Your task to perform on an android device: Check the weather Image 0: 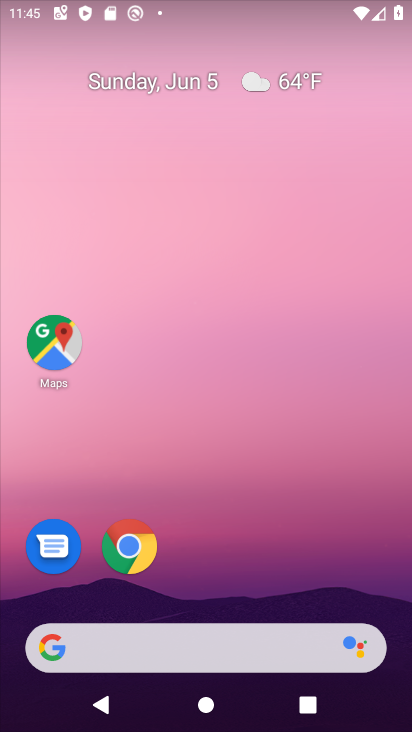
Step 0: click (140, 540)
Your task to perform on an android device: Check the weather Image 1: 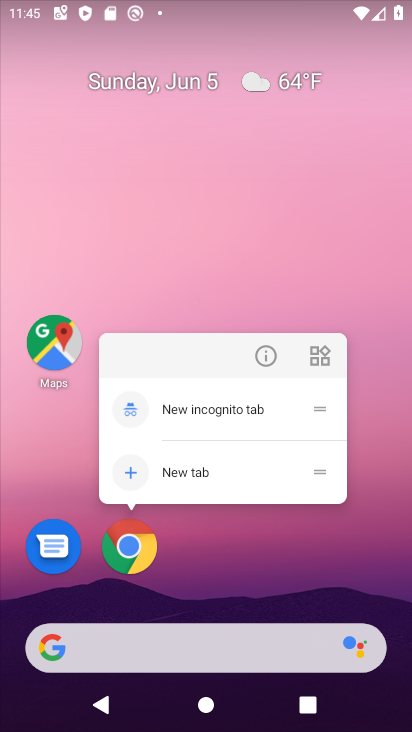
Step 1: click (141, 535)
Your task to perform on an android device: Check the weather Image 2: 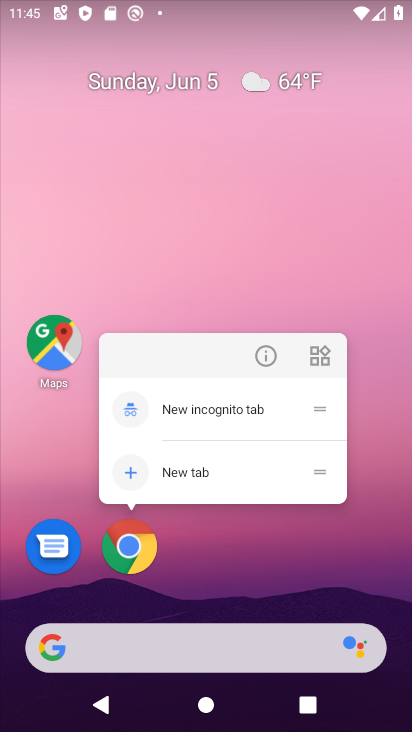
Step 2: click (137, 535)
Your task to perform on an android device: Check the weather Image 3: 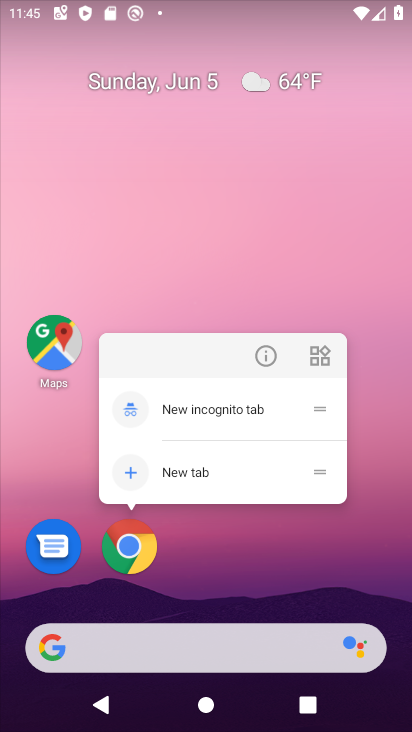
Step 3: click (133, 539)
Your task to perform on an android device: Check the weather Image 4: 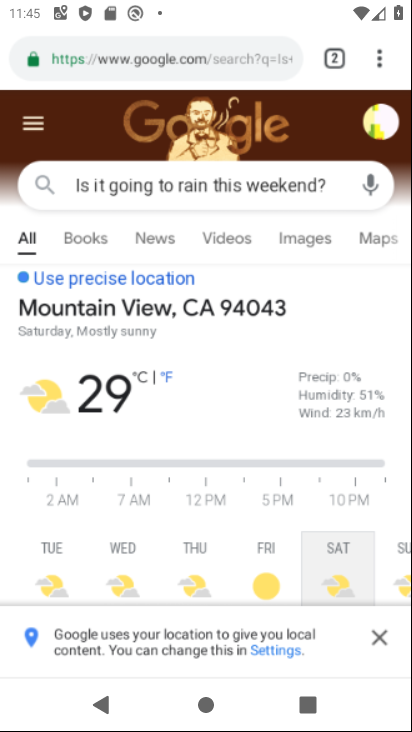
Step 4: click (133, 539)
Your task to perform on an android device: Check the weather Image 5: 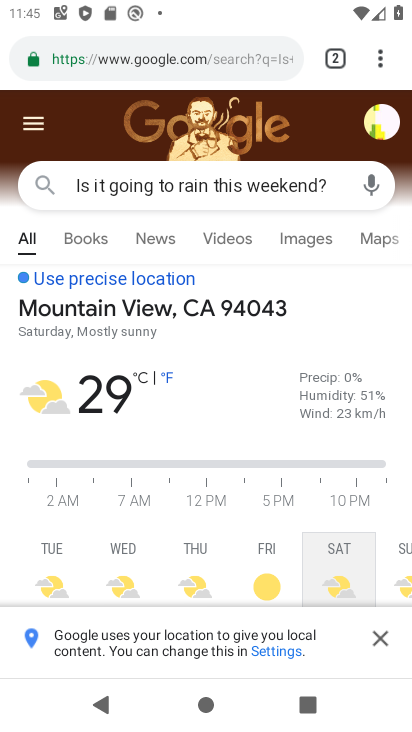
Step 5: click (394, 53)
Your task to perform on an android device: Check the weather Image 6: 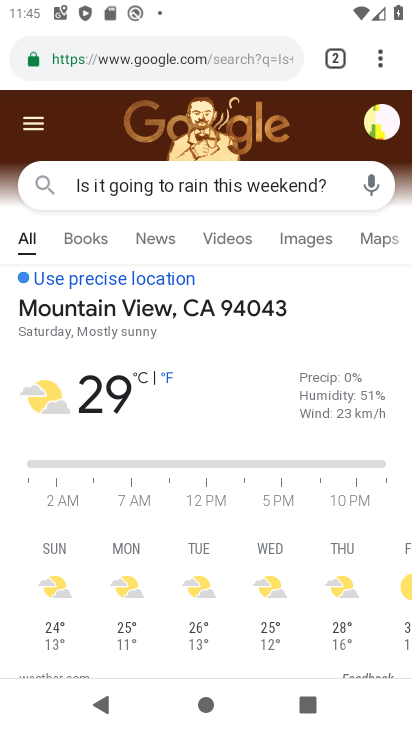
Step 6: click (381, 56)
Your task to perform on an android device: Check the weather Image 7: 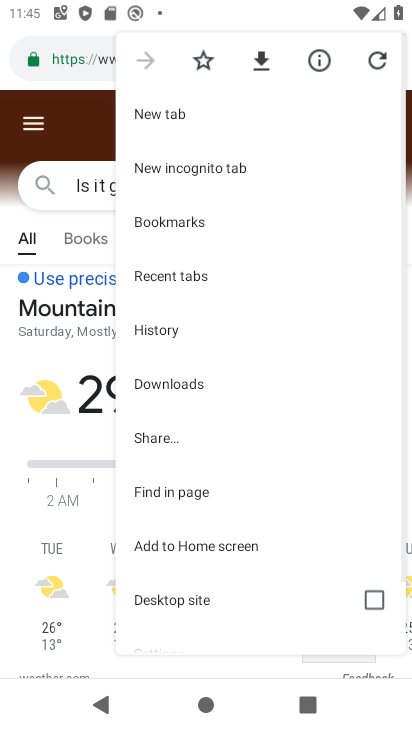
Step 7: click (169, 108)
Your task to perform on an android device: Check the weather Image 8: 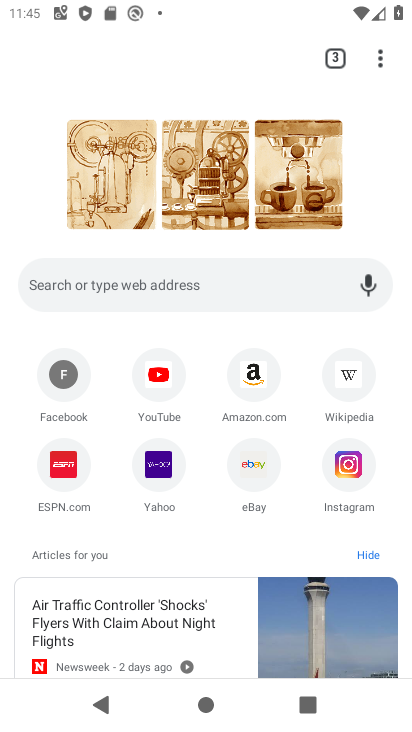
Step 8: click (213, 266)
Your task to perform on an android device: Check the weather Image 9: 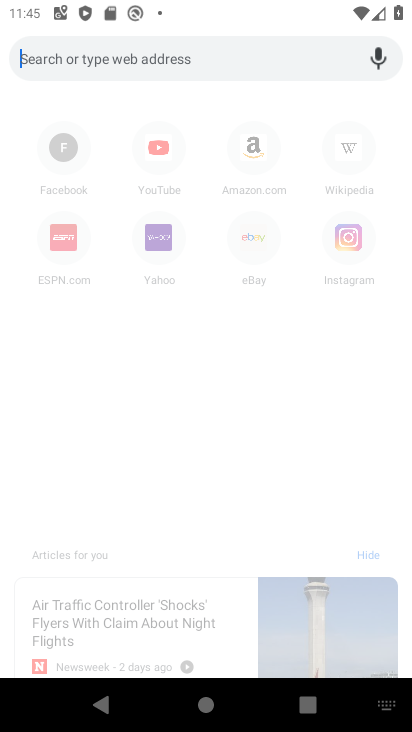
Step 9: type "Check the weather"
Your task to perform on an android device: Check the weather Image 10: 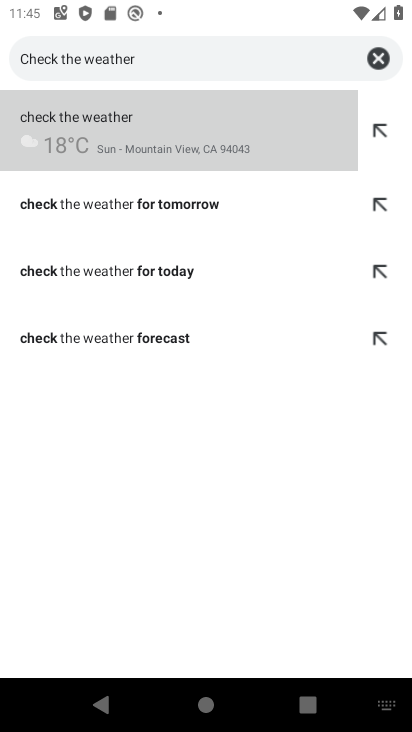
Step 10: click (108, 121)
Your task to perform on an android device: Check the weather Image 11: 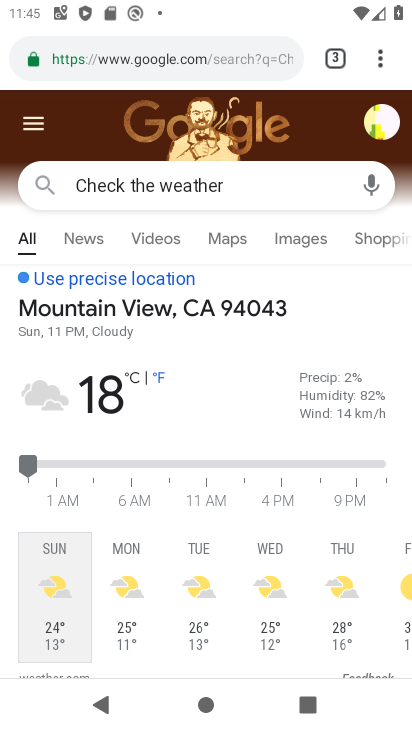
Step 11: task complete